Your task to perform on an android device: change the clock display to digital Image 0: 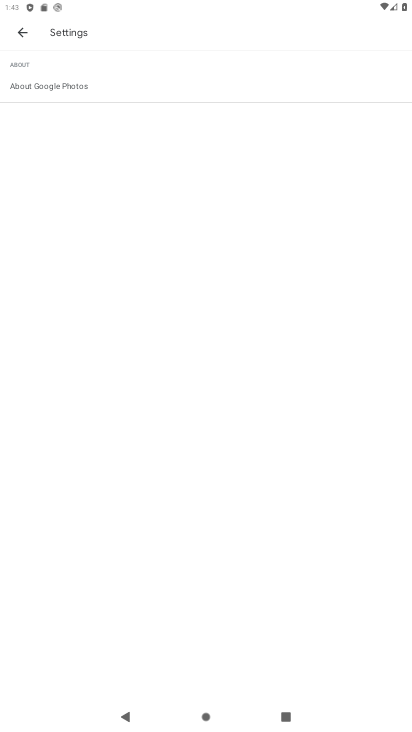
Step 0: press home button
Your task to perform on an android device: change the clock display to digital Image 1: 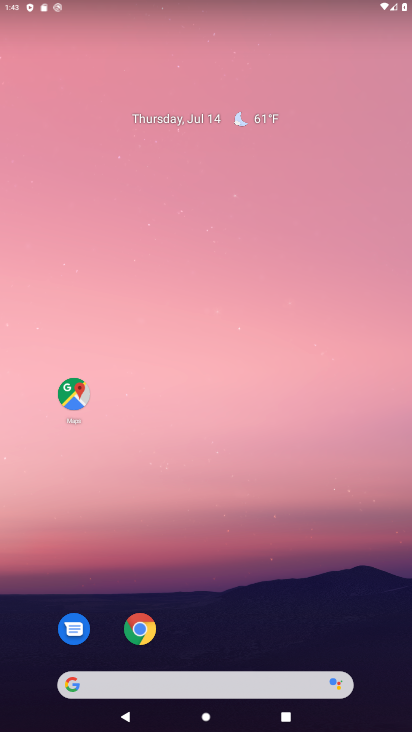
Step 1: drag from (217, 604) to (178, 21)
Your task to perform on an android device: change the clock display to digital Image 2: 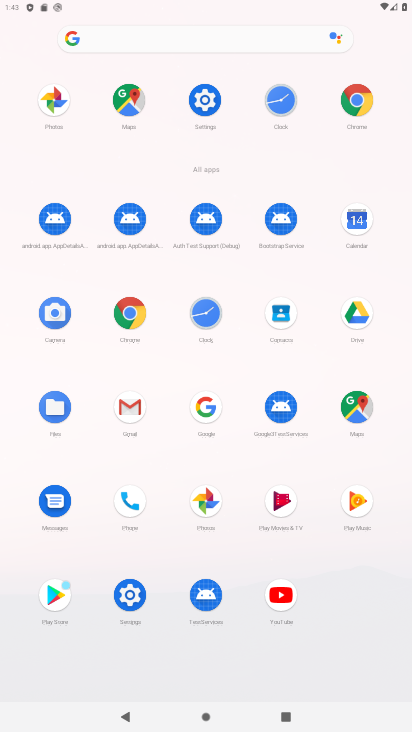
Step 2: click (207, 327)
Your task to perform on an android device: change the clock display to digital Image 3: 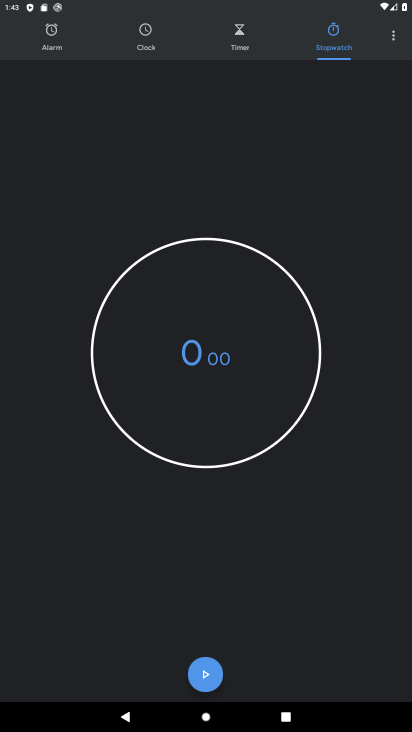
Step 3: click (396, 38)
Your task to perform on an android device: change the clock display to digital Image 4: 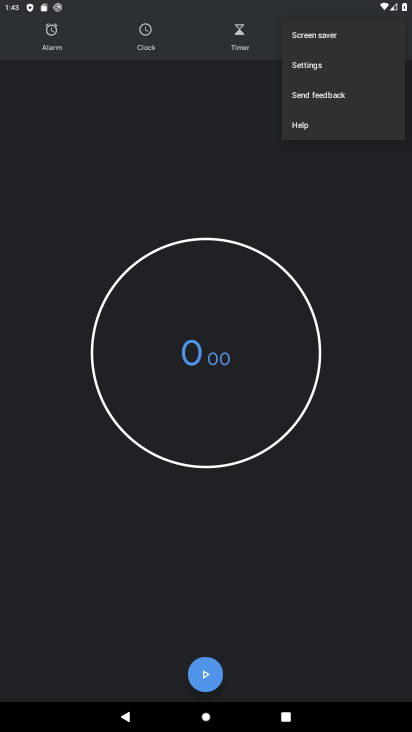
Step 4: click (310, 67)
Your task to perform on an android device: change the clock display to digital Image 5: 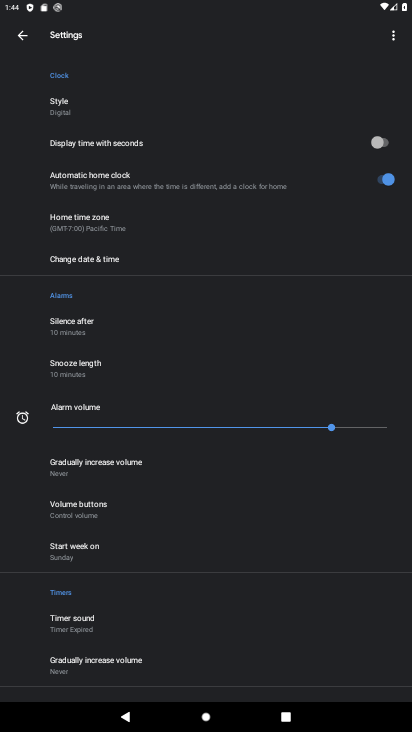
Step 5: click (80, 109)
Your task to perform on an android device: change the clock display to digital Image 6: 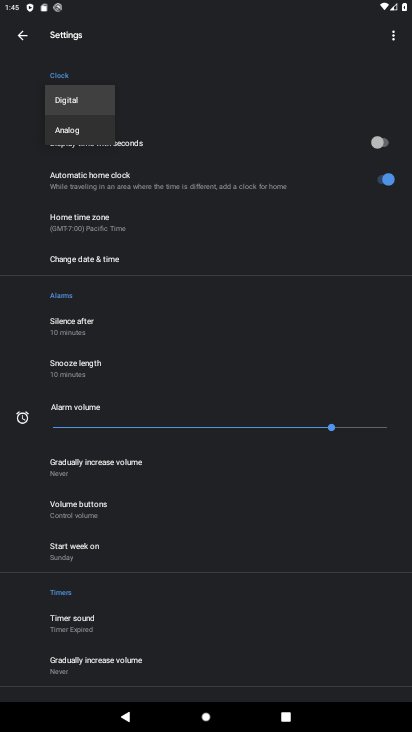
Step 6: click (73, 104)
Your task to perform on an android device: change the clock display to digital Image 7: 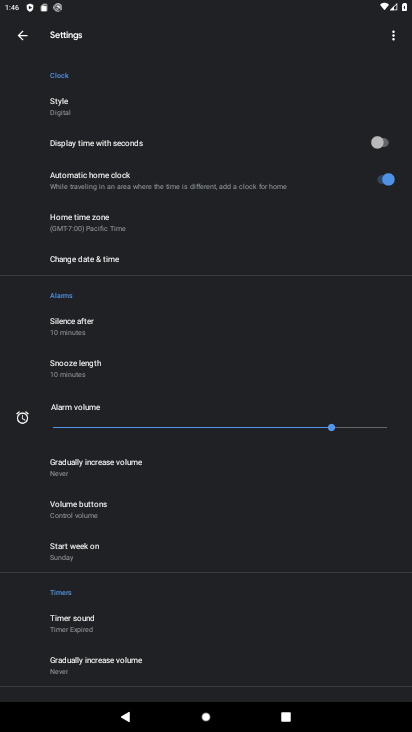
Step 7: task complete